Your task to perform on an android device: Find coffee shops on Maps Image 0: 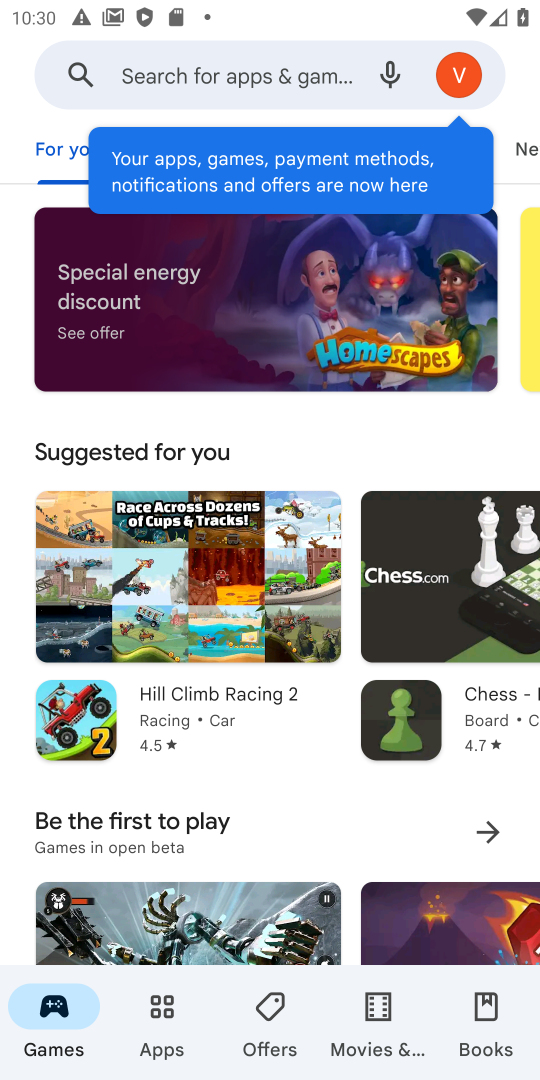
Step 0: press home button
Your task to perform on an android device: Find coffee shops on Maps Image 1: 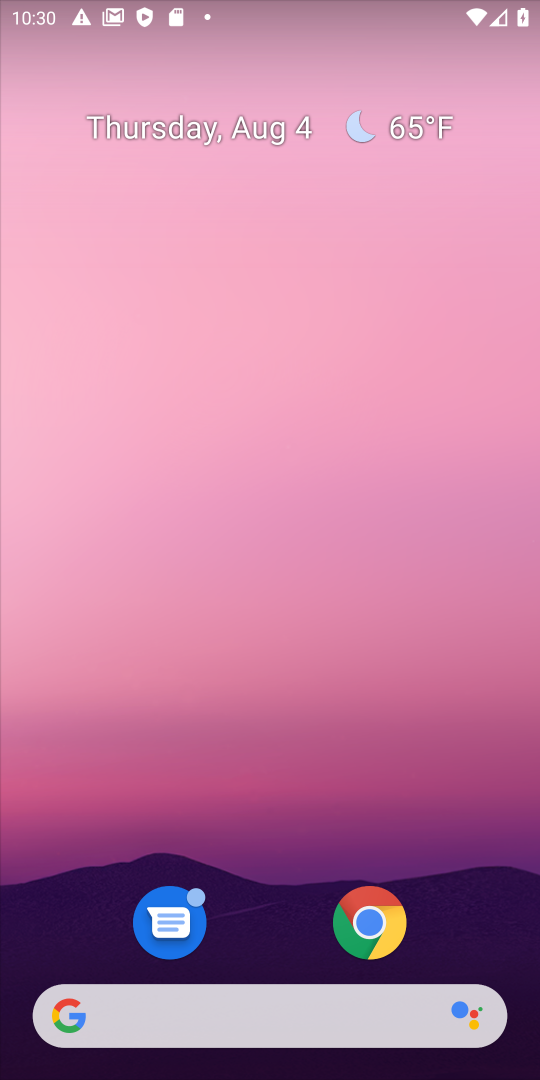
Step 1: drag from (248, 781) to (241, 274)
Your task to perform on an android device: Find coffee shops on Maps Image 2: 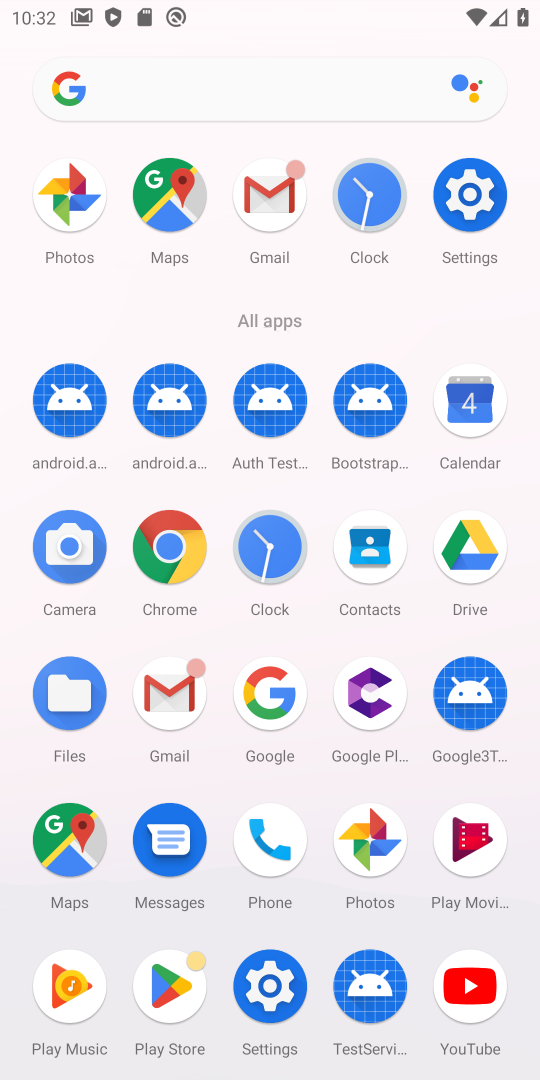
Step 2: click (163, 184)
Your task to perform on an android device: Find coffee shops on Maps Image 3: 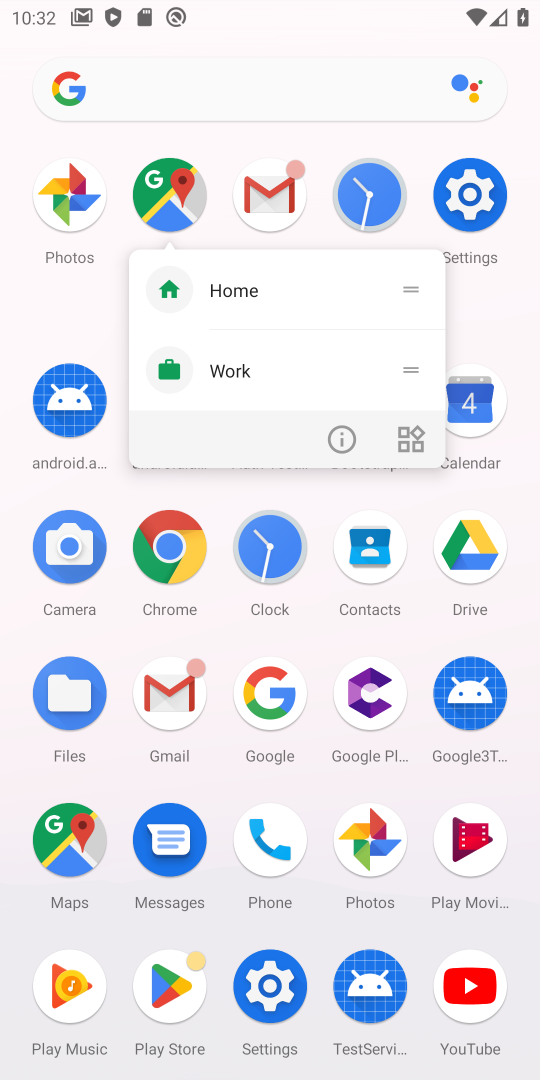
Step 3: click (164, 192)
Your task to perform on an android device: Find coffee shops on Maps Image 4: 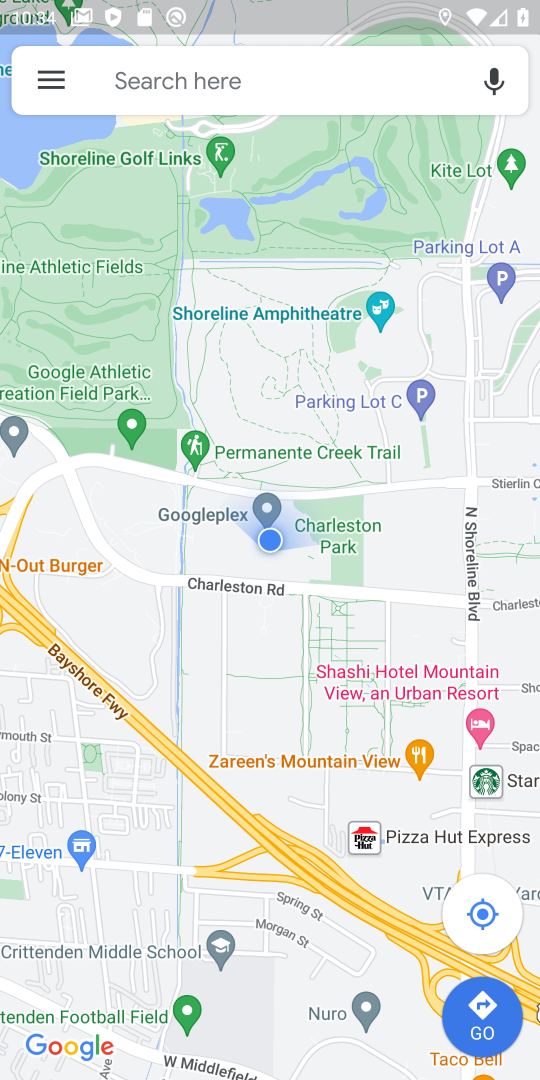
Step 4: click (200, 92)
Your task to perform on an android device: Find coffee shops on Maps Image 5: 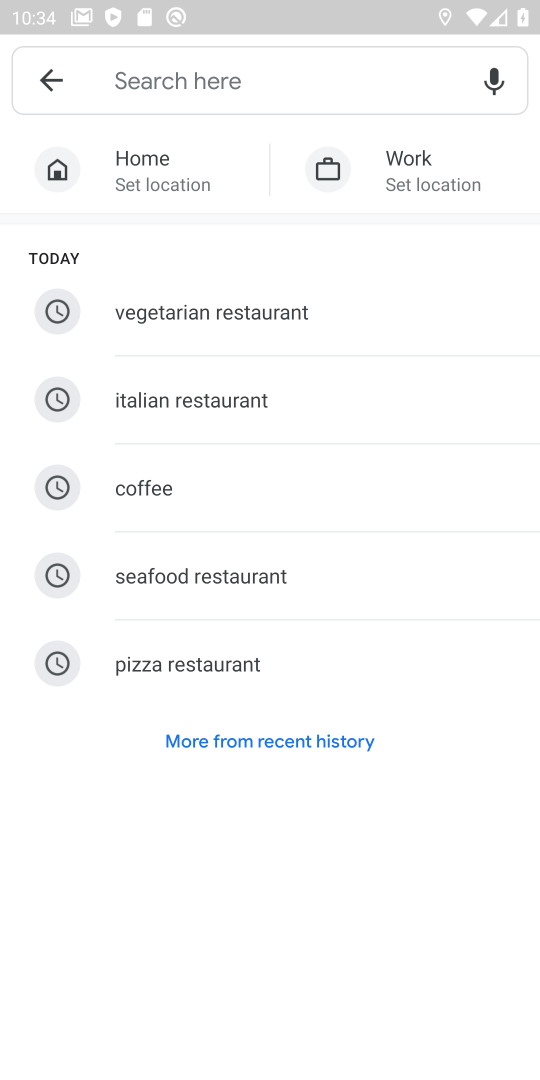
Step 5: click (184, 486)
Your task to perform on an android device: Find coffee shops on Maps Image 6: 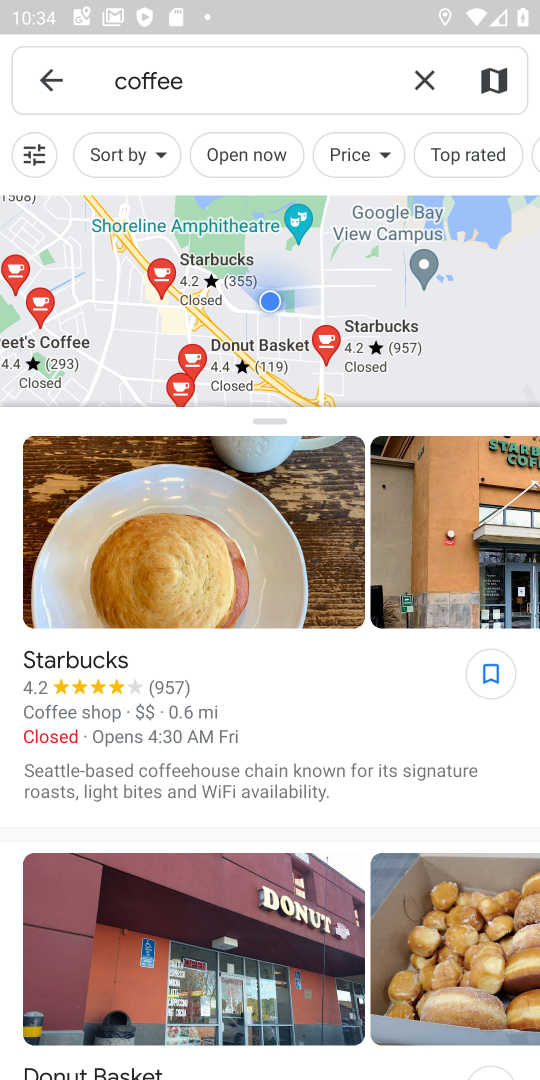
Step 6: task complete